Your task to perform on an android device: toggle notifications settings in the gmail app Image 0: 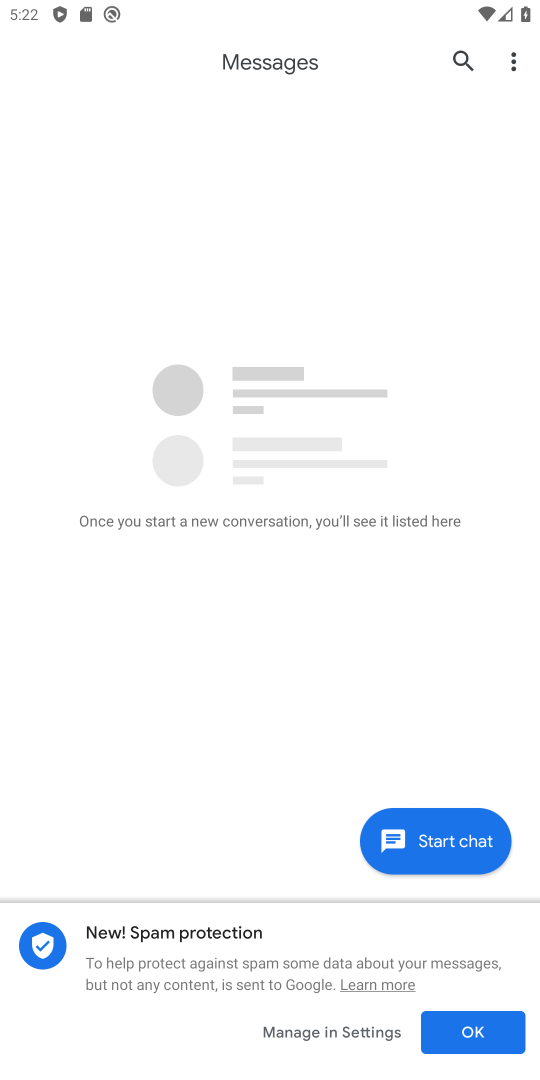
Step 0: press home button
Your task to perform on an android device: toggle notifications settings in the gmail app Image 1: 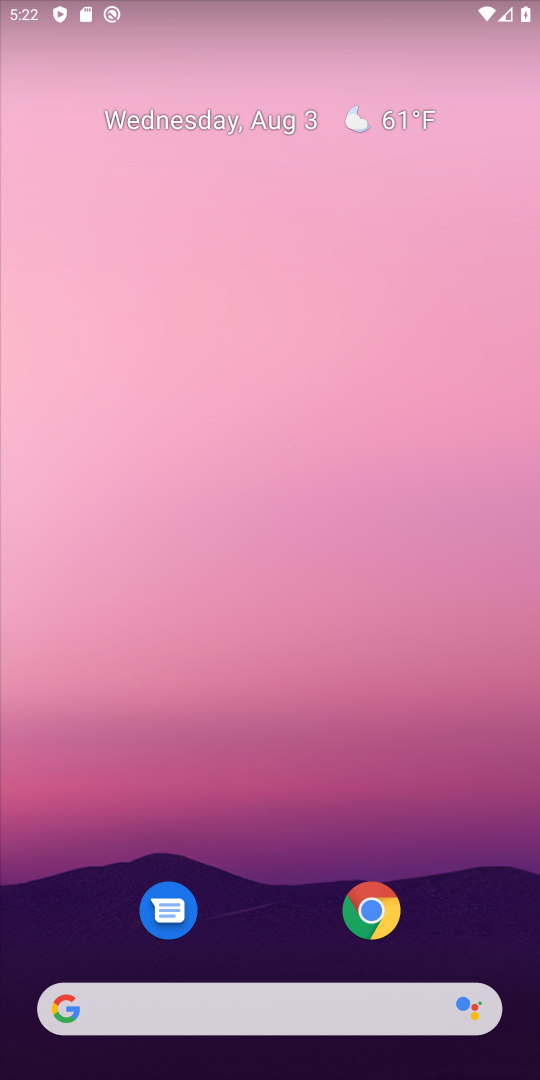
Step 1: drag from (272, 894) to (359, 93)
Your task to perform on an android device: toggle notifications settings in the gmail app Image 2: 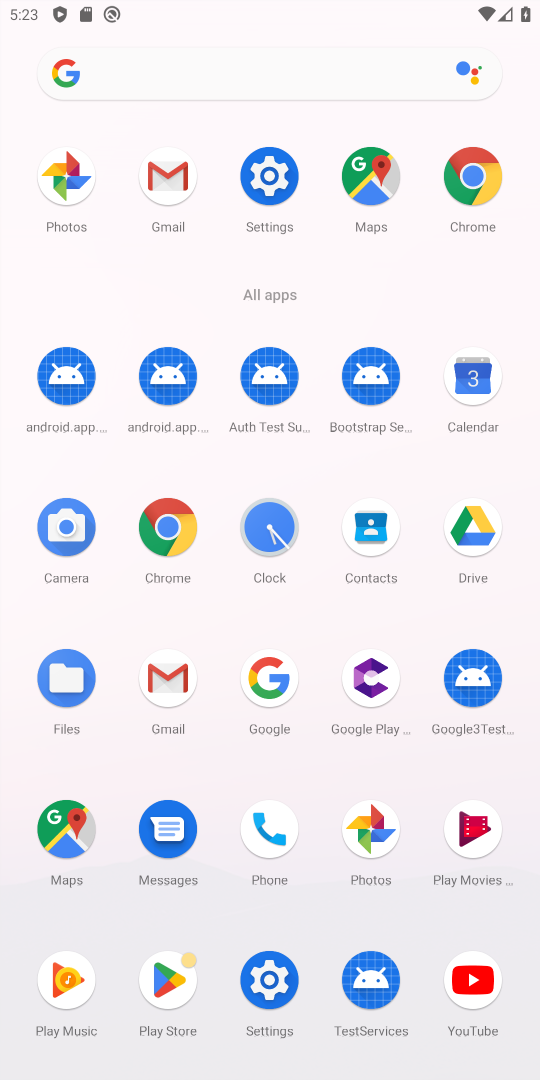
Step 2: click (155, 679)
Your task to perform on an android device: toggle notifications settings in the gmail app Image 3: 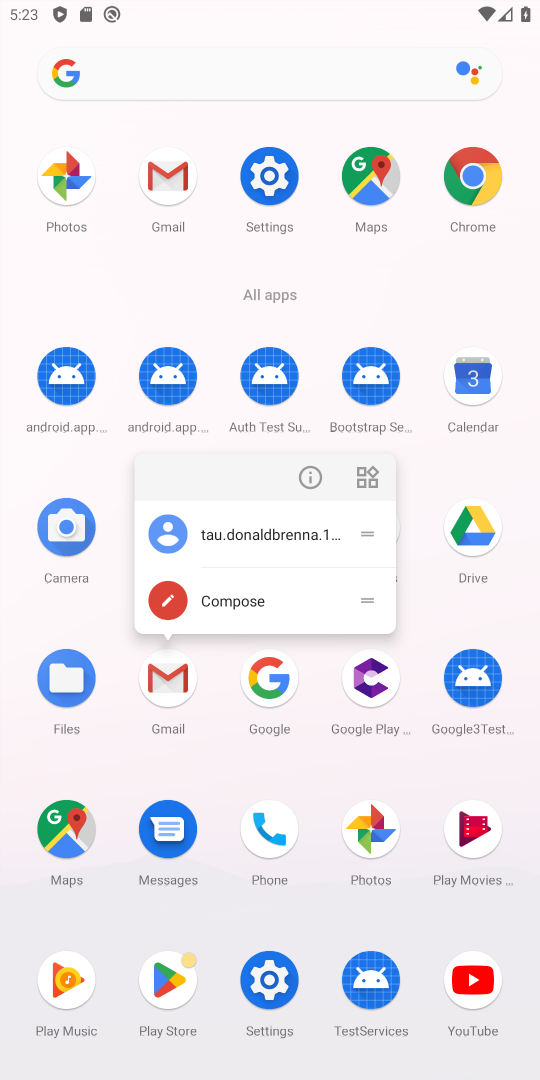
Step 3: click (157, 670)
Your task to perform on an android device: toggle notifications settings in the gmail app Image 4: 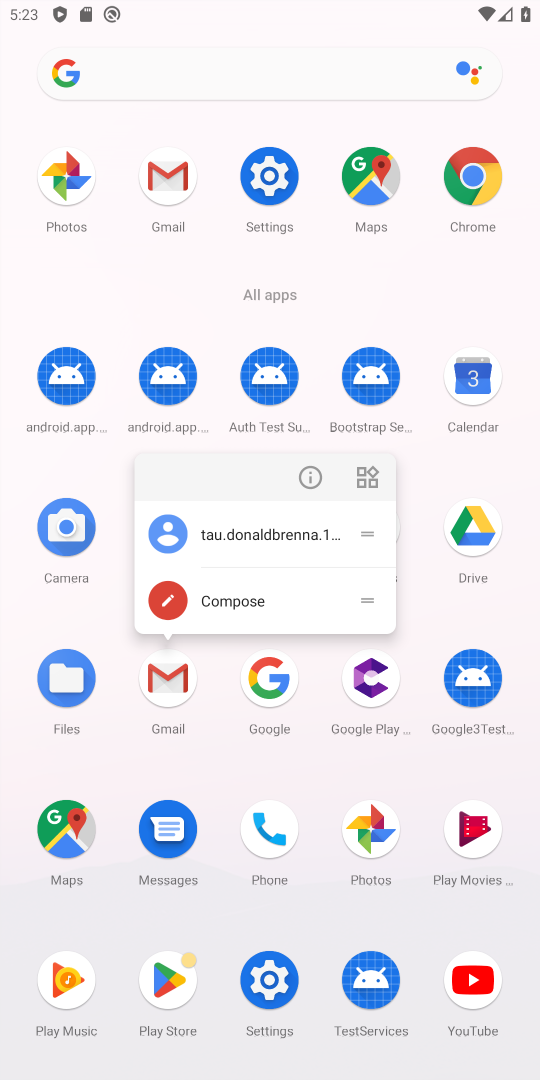
Step 4: click (311, 470)
Your task to perform on an android device: toggle notifications settings in the gmail app Image 5: 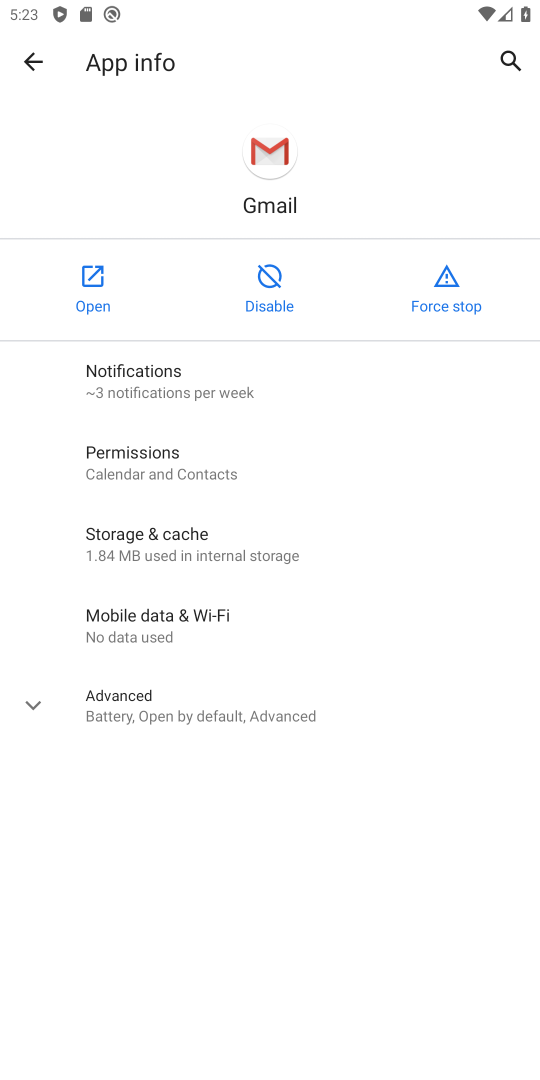
Step 5: click (132, 384)
Your task to perform on an android device: toggle notifications settings in the gmail app Image 6: 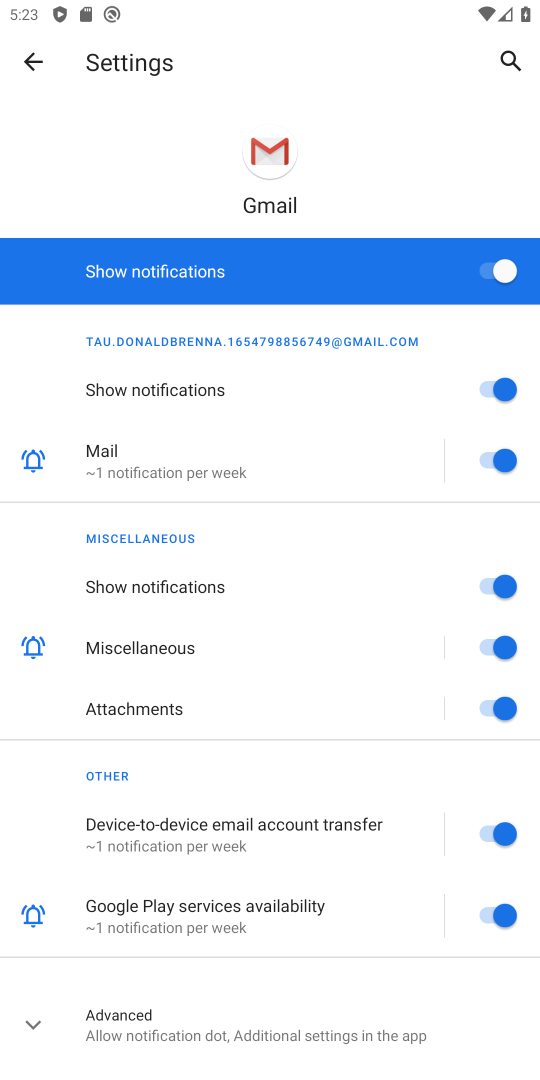
Step 6: click (365, 252)
Your task to perform on an android device: toggle notifications settings in the gmail app Image 7: 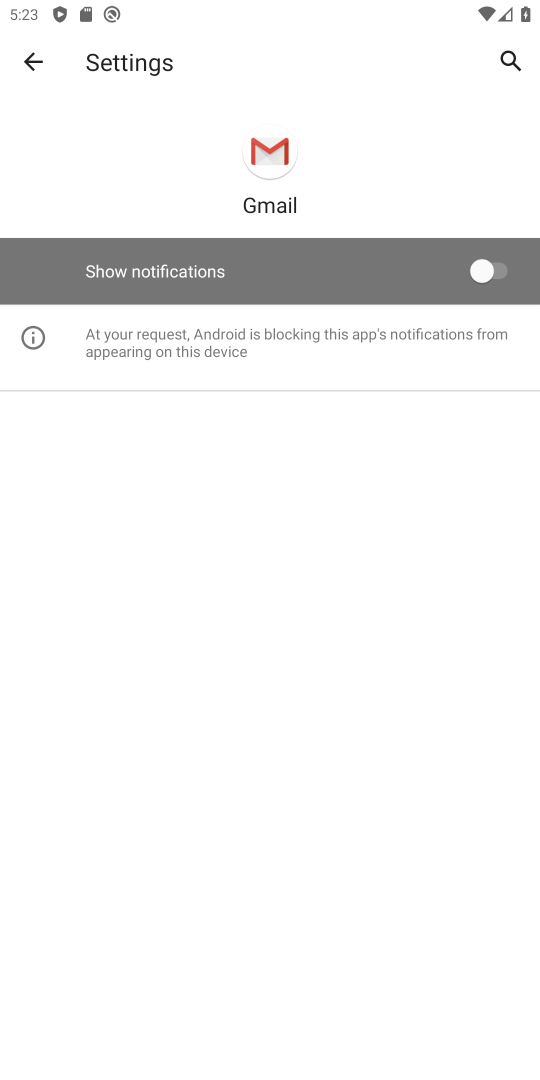
Step 7: task complete